Your task to perform on an android device: Open the phone app and click the voicemail tab. Image 0: 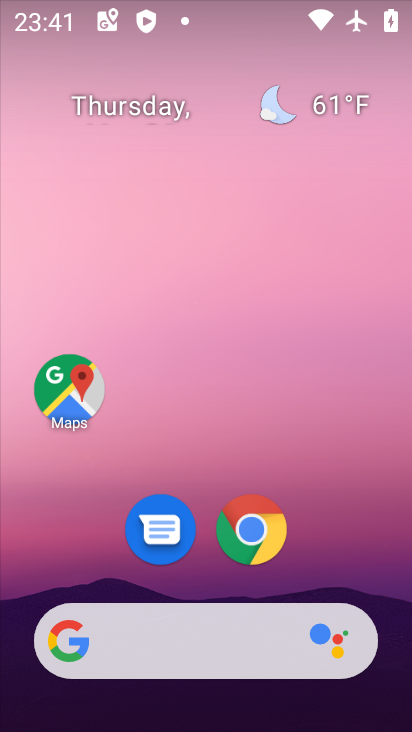
Step 0: drag from (353, 568) to (275, 19)
Your task to perform on an android device: Open the phone app and click the voicemail tab. Image 1: 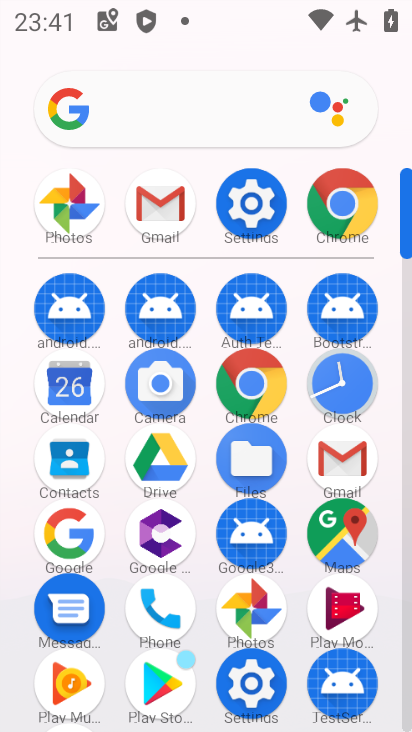
Step 1: click (158, 621)
Your task to perform on an android device: Open the phone app and click the voicemail tab. Image 2: 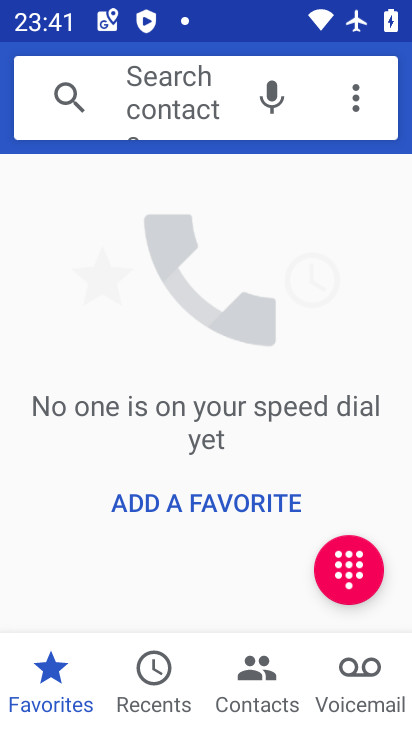
Step 2: click (351, 693)
Your task to perform on an android device: Open the phone app and click the voicemail tab. Image 3: 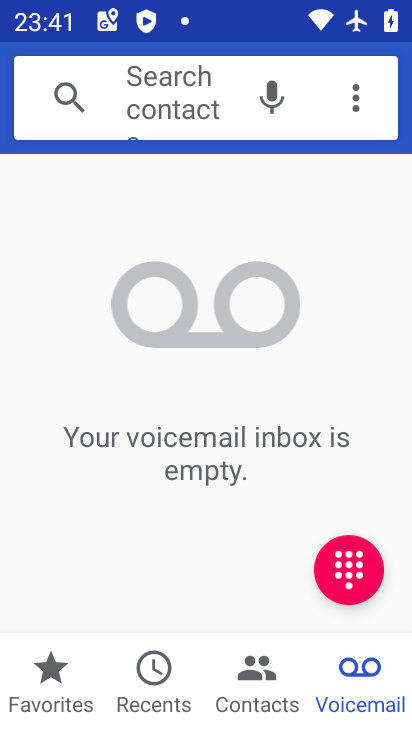
Step 3: task complete